Your task to perform on an android device: toggle data saver in the chrome app Image 0: 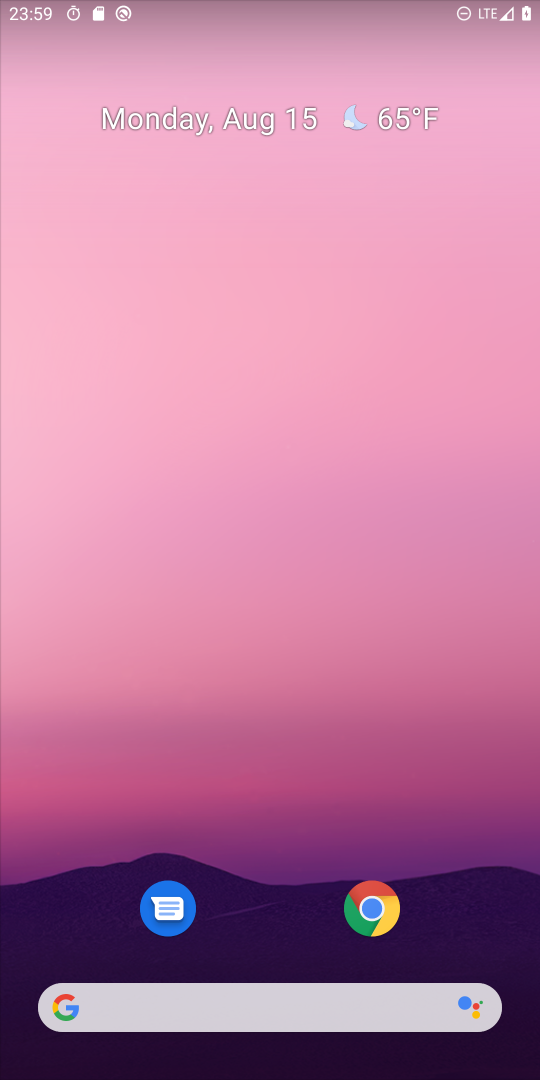
Step 0: drag from (300, 901) to (243, 77)
Your task to perform on an android device: toggle data saver in the chrome app Image 1: 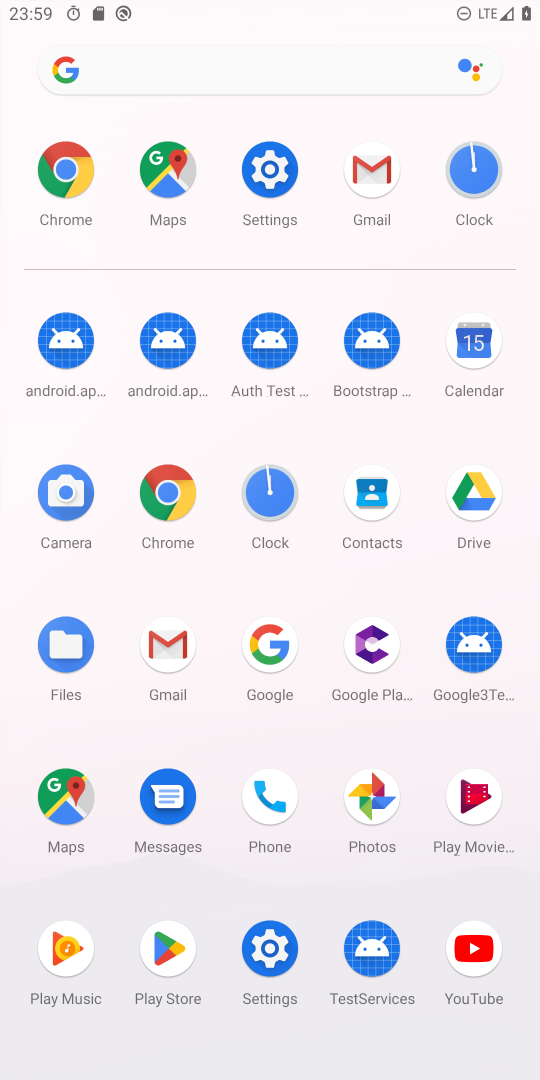
Step 1: click (75, 169)
Your task to perform on an android device: toggle data saver in the chrome app Image 2: 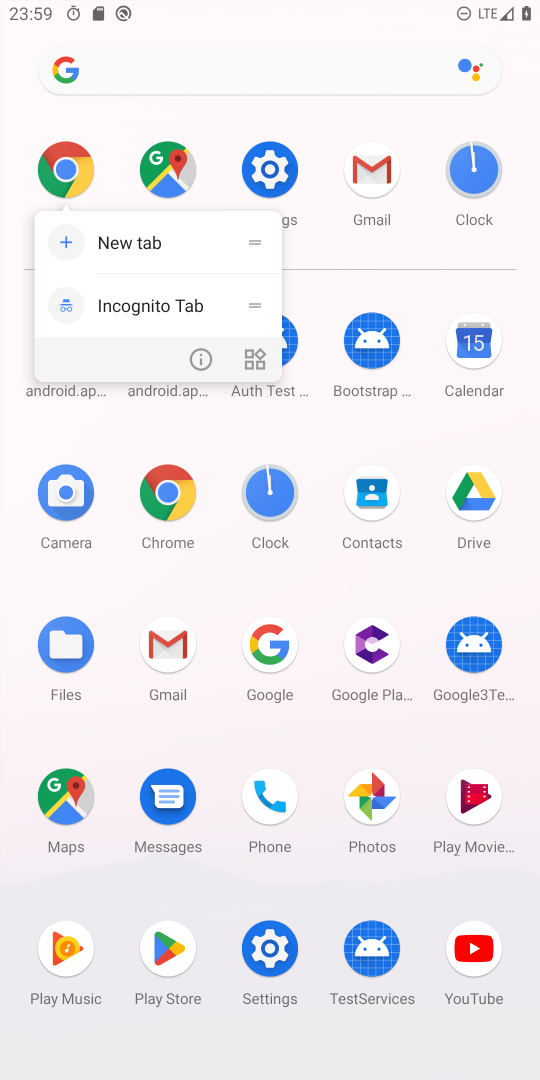
Step 2: click (75, 169)
Your task to perform on an android device: toggle data saver in the chrome app Image 3: 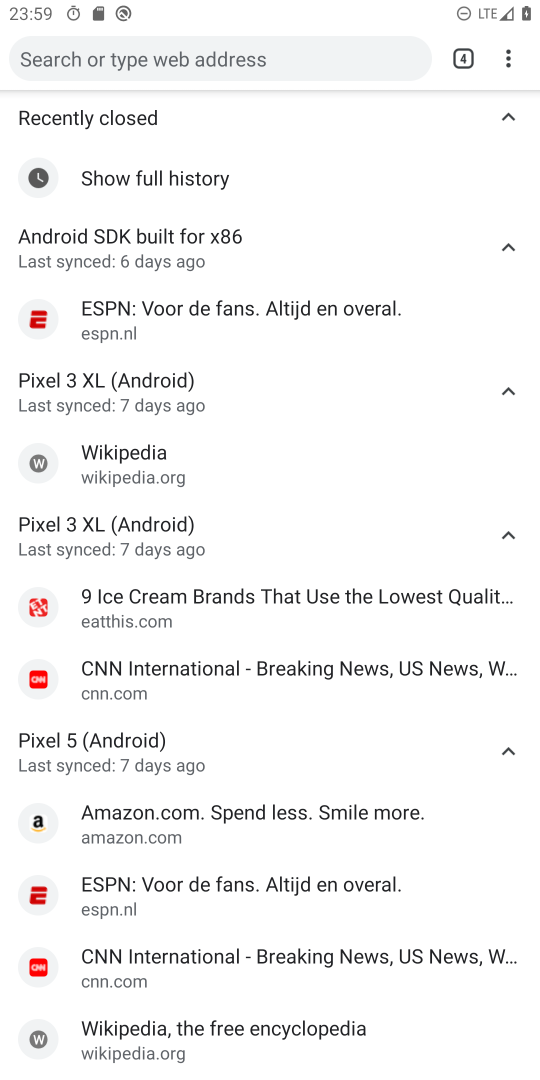
Step 3: click (509, 70)
Your task to perform on an android device: toggle data saver in the chrome app Image 4: 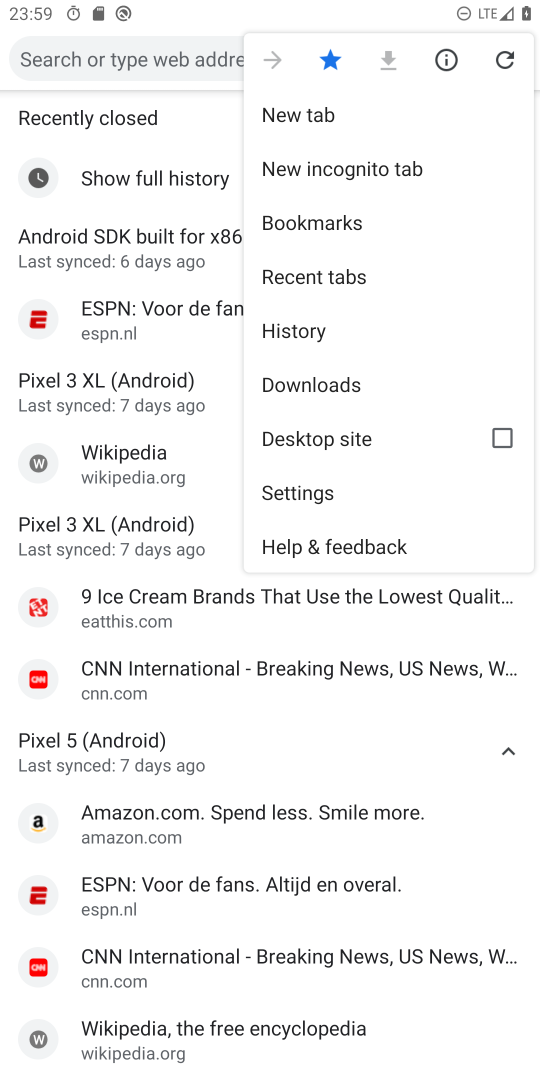
Step 4: click (289, 500)
Your task to perform on an android device: toggle data saver in the chrome app Image 5: 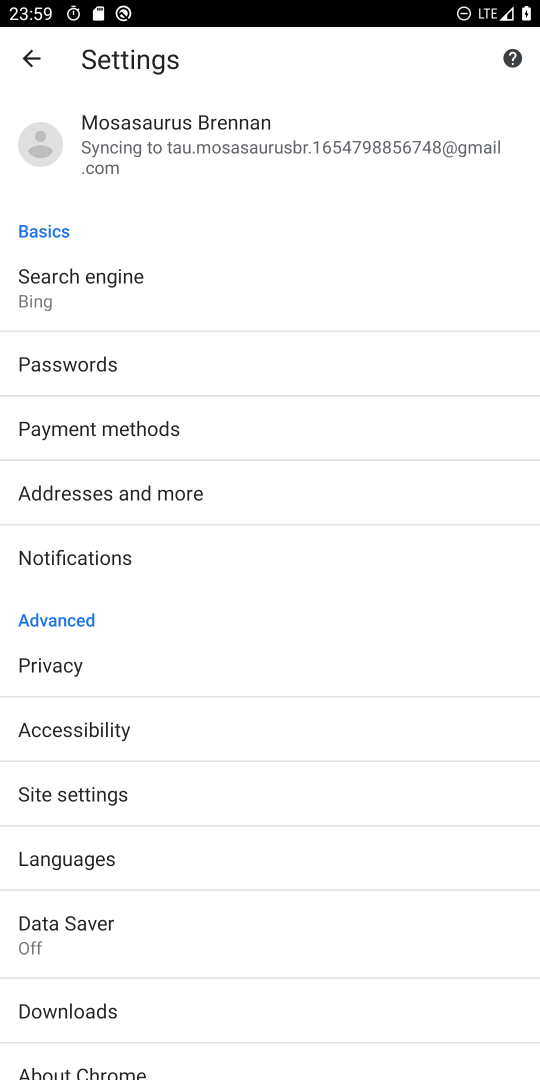
Step 5: click (108, 921)
Your task to perform on an android device: toggle data saver in the chrome app Image 6: 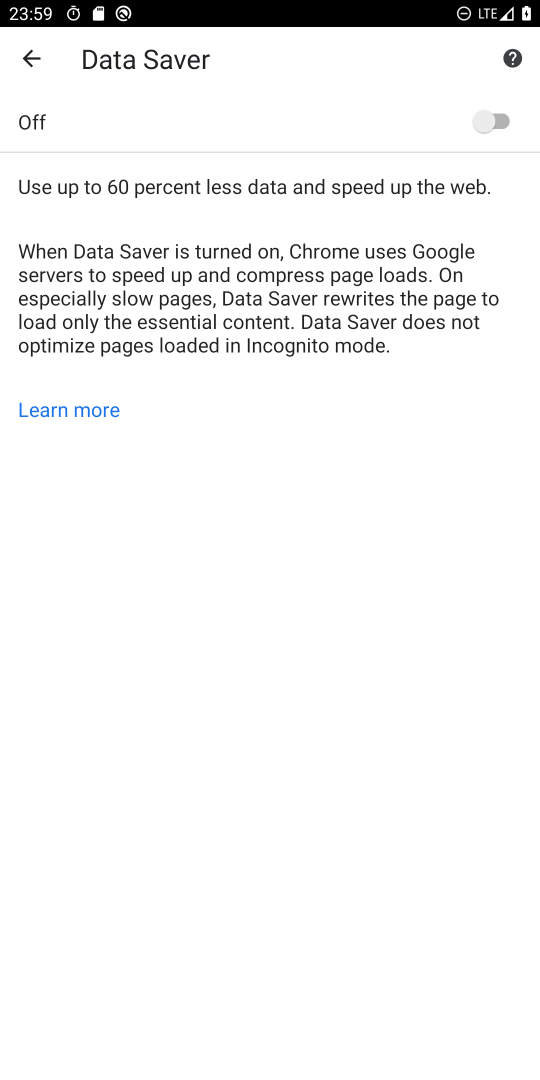
Step 6: click (491, 124)
Your task to perform on an android device: toggle data saver in the chrome app Image 7: 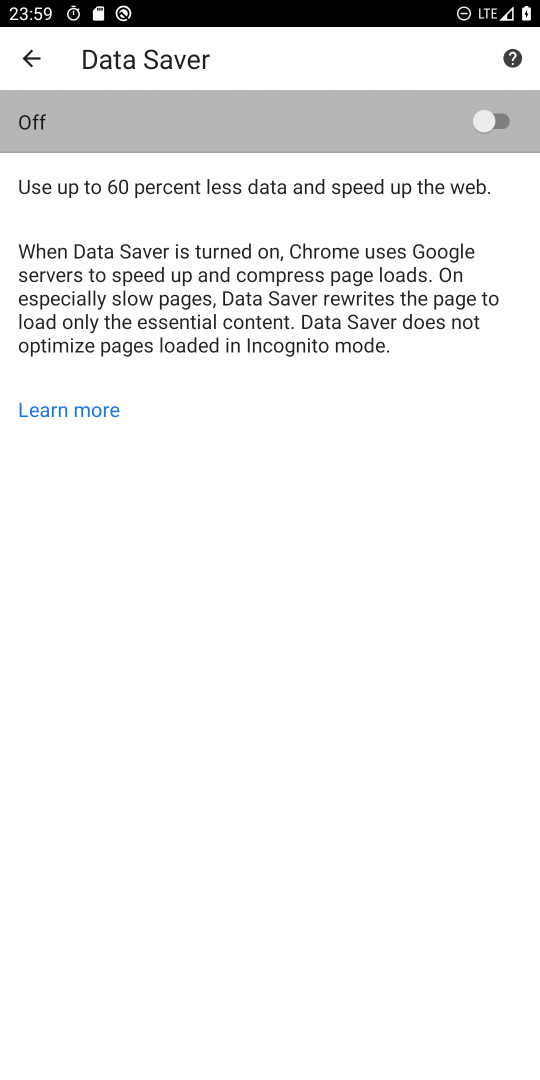
Step 7: click (491, 124)
Your task to perform on an android device: toggle data saver in the chrome app Image 8: 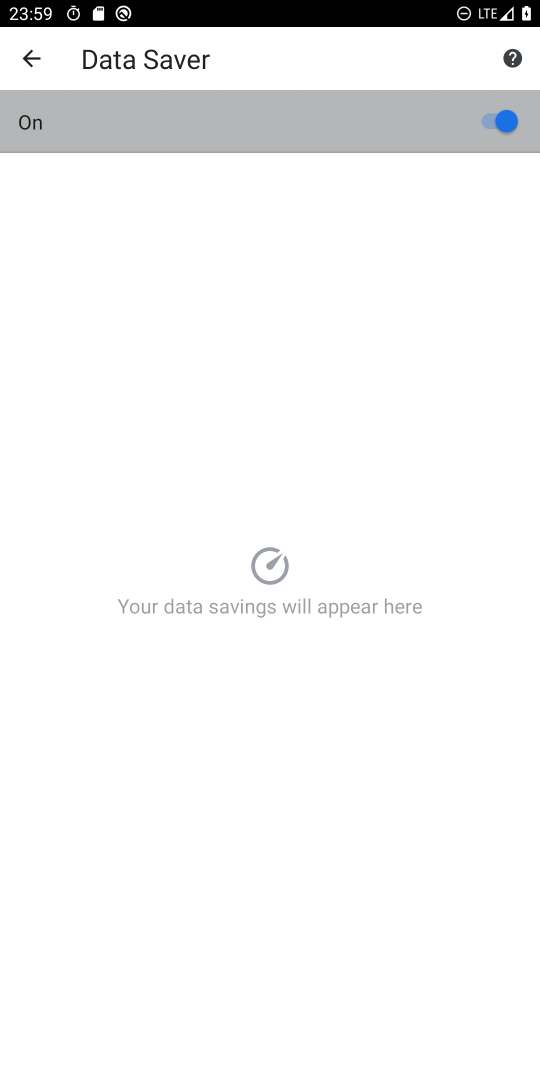
Step 8: click (491, 124)
Your task to perform on an android device: toggle data saver in the chrome app Image 9: 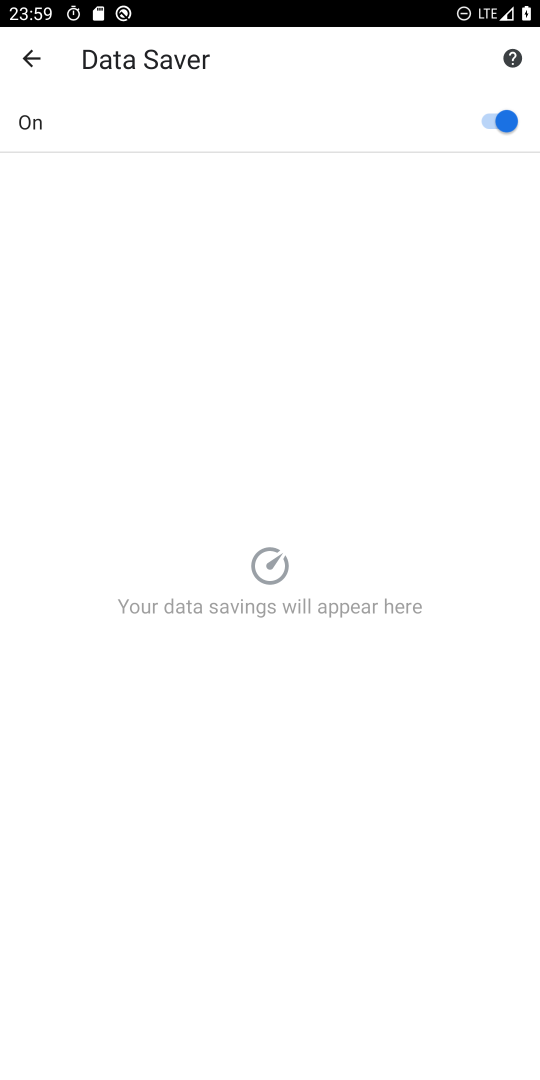
Step 9: task complete